Your task to perform on an android device: Go to calendar. Show me events next week Image 0: 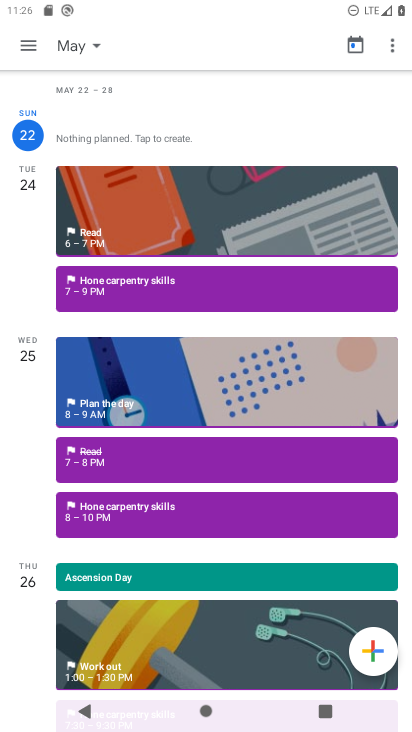
Step 0: press home button
Your task to perform on an android device: Go to calendar. Show me events next week Image 1: 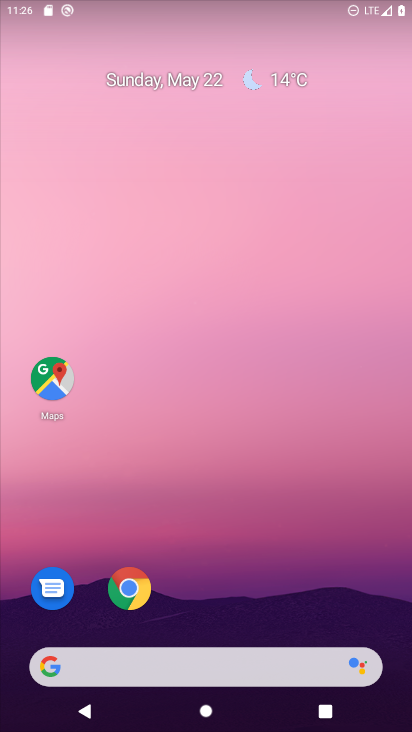
Step 1: drag from (230, 627) to (299, 130)
Your task to perform on an android device: Go to calendar. Show me events next week Image 2: 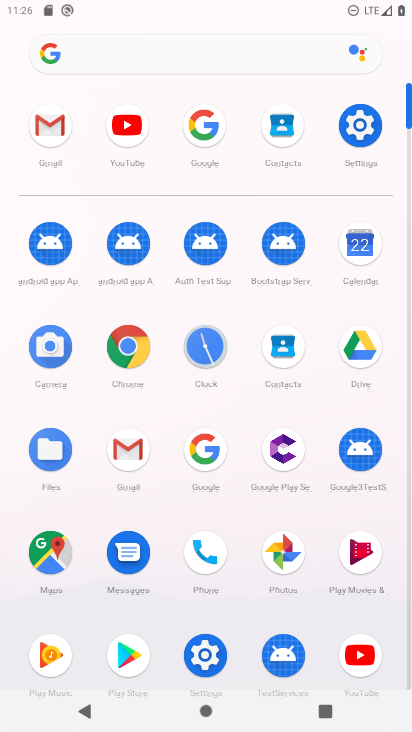
Step 2: click (357, 226)
Your task to perform on an android device: Go to calendar. Show me events next week Image 3: 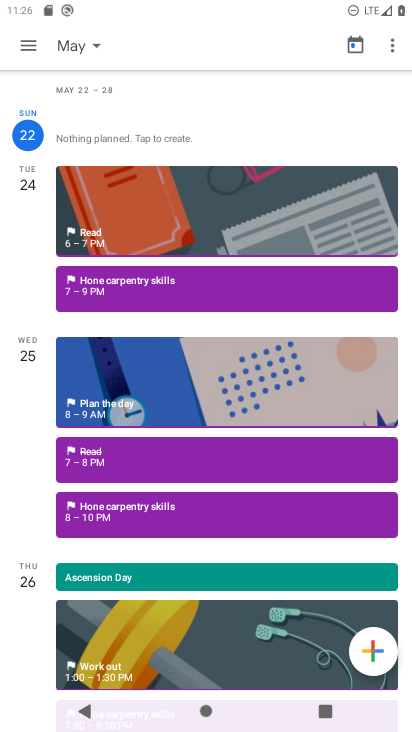
Step 3: click (87, 52)
Your task to perform on an android device: Go to calendar. Show me events next week Image 4: 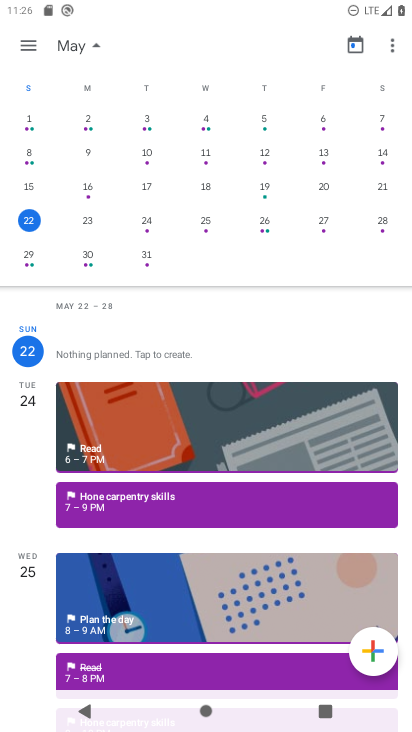
Step 4: click (32, 256)
Your task to perform on an android device: Go to calendar. Show me events next week Image 5: 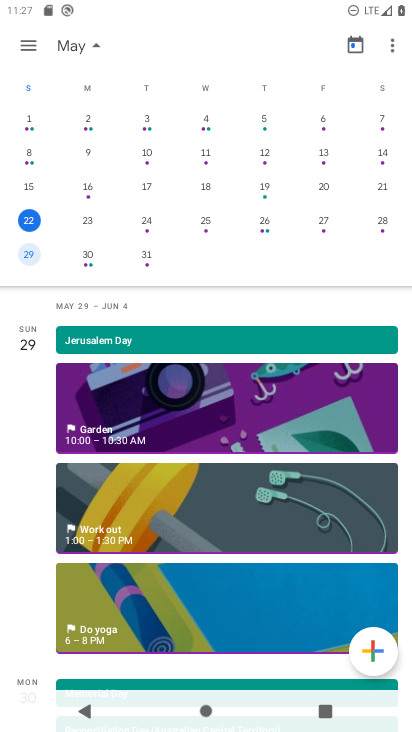
Step 5: task complete